Your task to perform on an android device: Go to sound settings Image 0: 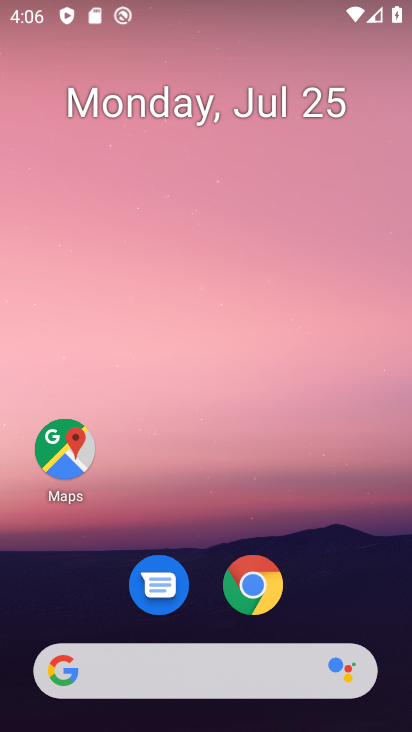
Step 0: drag from (334, 589) to (316, 32)
Your task to perform on an android device: Go to sound settings Image 1: 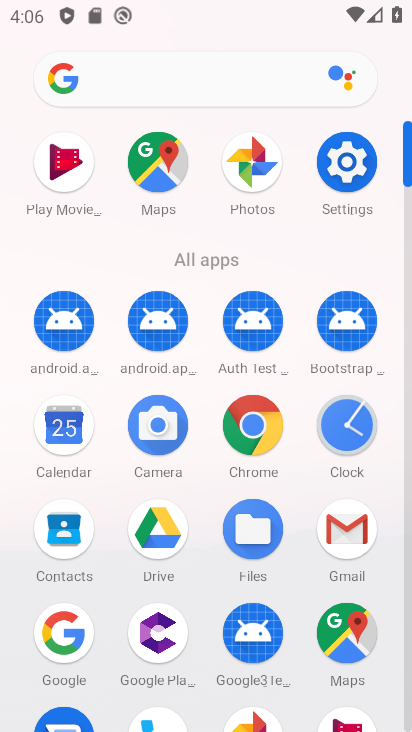
Step 1: click (339, 159)
Your task to perform on an android device: Go to sound settings Image 2: 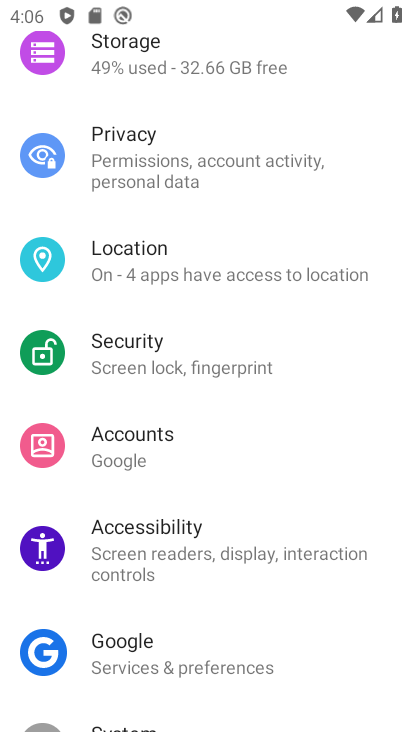
Step 2: drag from (216, 124) to (216, 563)
Your task to perform on an android device: Go to sound settings Image 3: 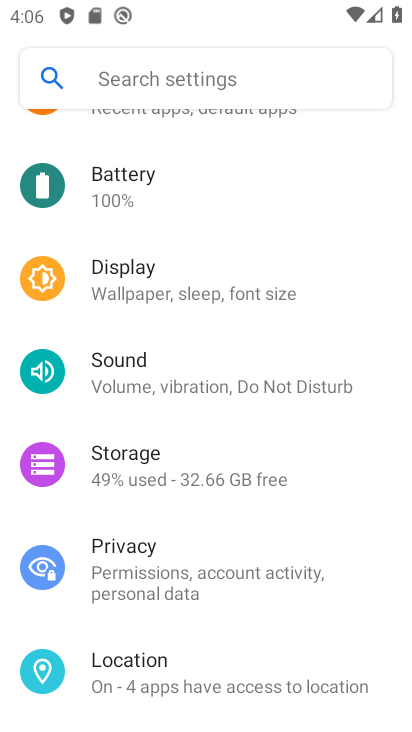
Step 3: click (200, 360)
Your task to perform on an android device: Go to sound settings Image 4: 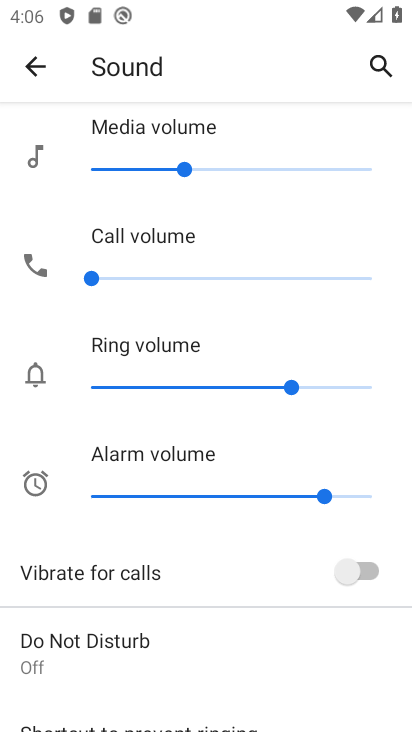
Step 4: task complete